Your task to perform on an android device: What is the recent news? Image 0: 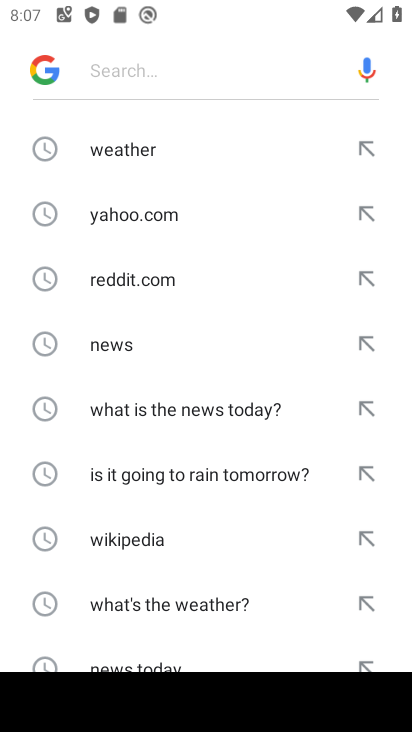
Step 0: press home button
Your task to perform on an android device: What is the recent news? Image 1: 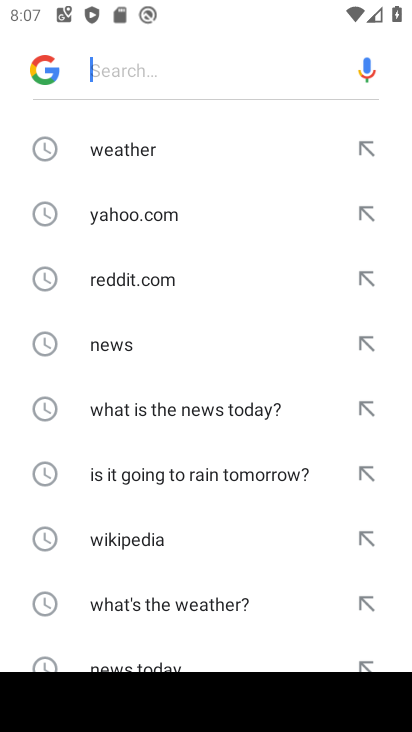
Step 1: task complete